Your task to perform on an android device: Open Google Maps Image 0: 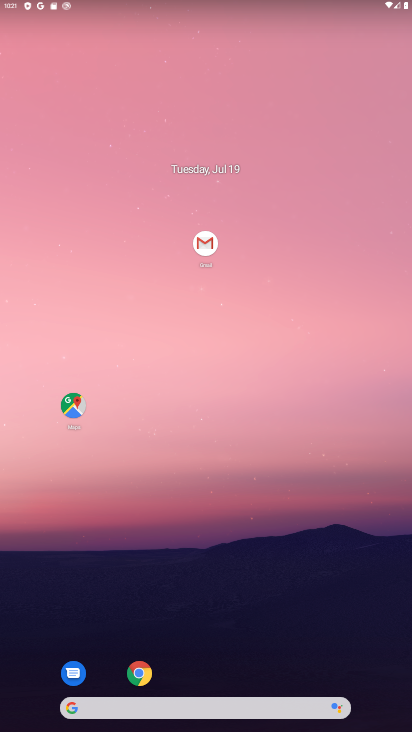
Step 0: click (71, 414)
Your task to perform on an android device: Open Google Maps Image 1: 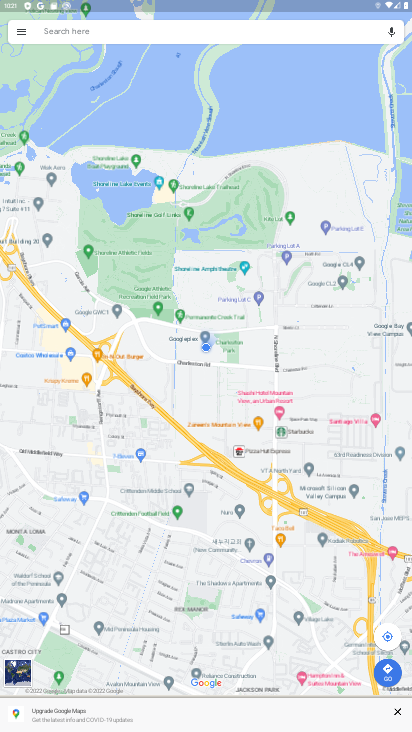
Step 1: task complete